Your task to perform on an android device: turn on wifi Image 0: 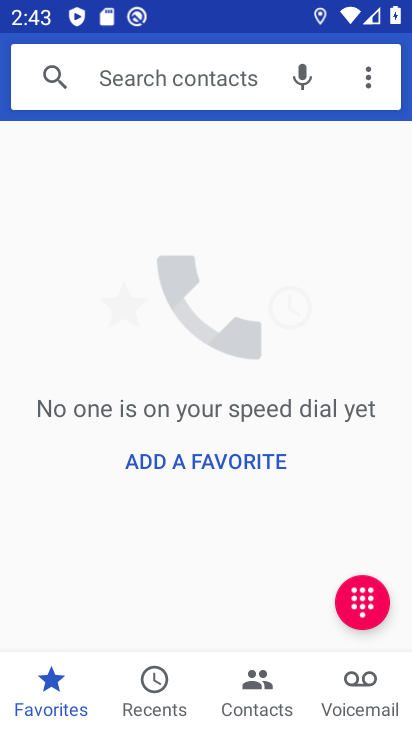
Step 0: press home button
Your task to perform on an android device: turn on wifi Image 1: 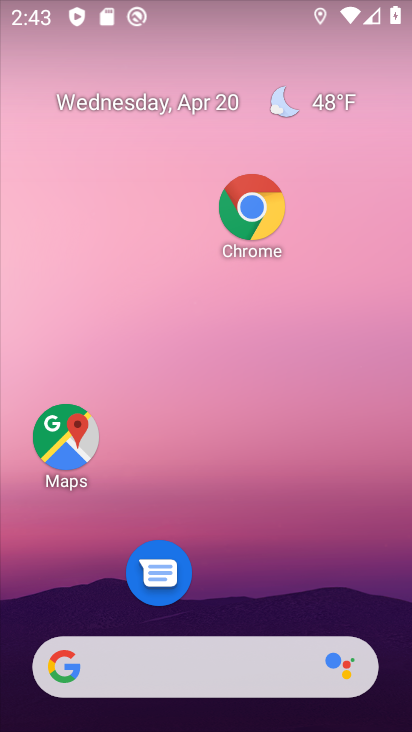
Step 1: drag from (270, 584) to (364, 210)
Your task to perform on an android device: turn on wifi Image 2: 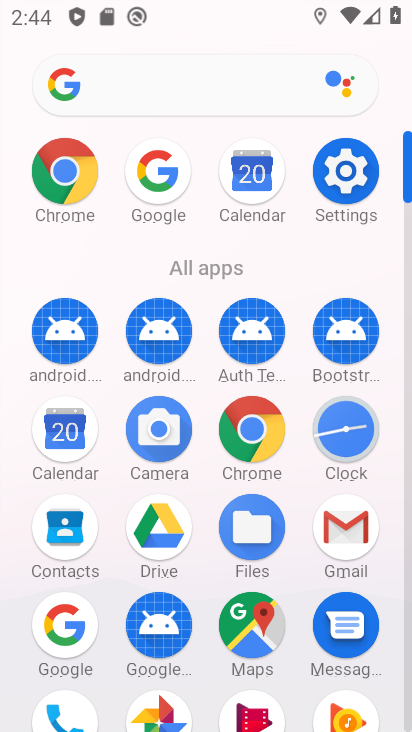
Step 2: click (364, 209)
Your task to perform on an android device: turn on wifi Image 3: 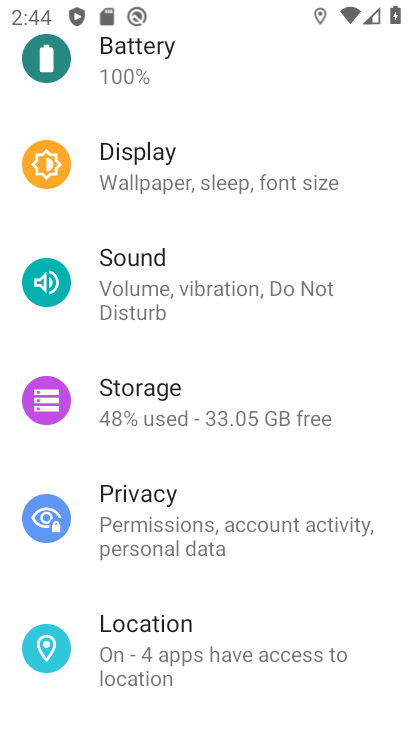
Step 3: drag from (290, 207) to (196, 696)
Your task to perform on an android device: turn on wifi Image 4: 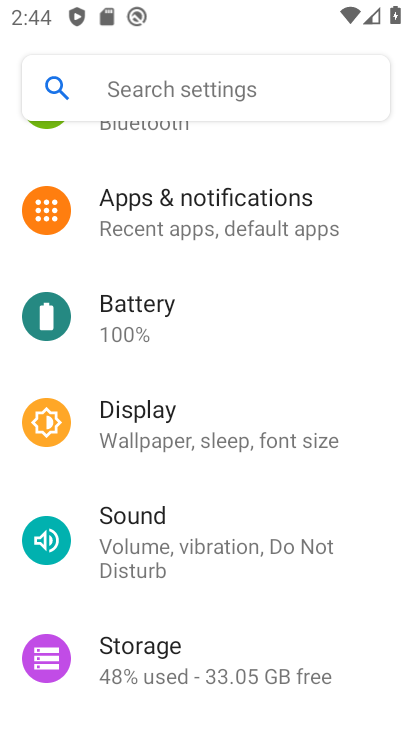
Step 4: drag from (282, 390) to (234, 656)
Your task to perform on an android device: turn on wifi Image 5: 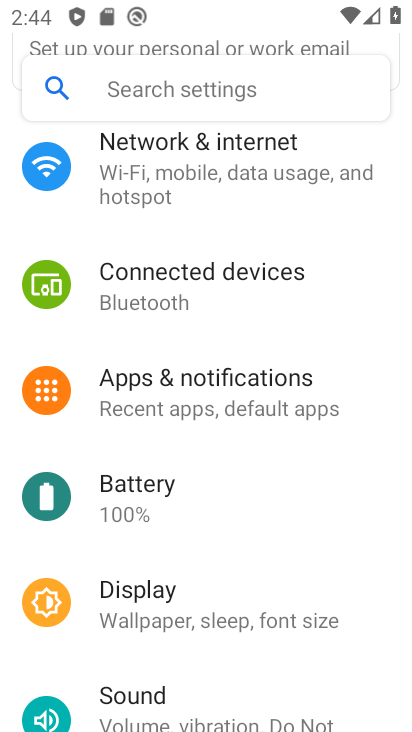
Step 5: drag from (283, 362) to (288, 607)
Your task to perform on an android device: turn on wifi Image 6: 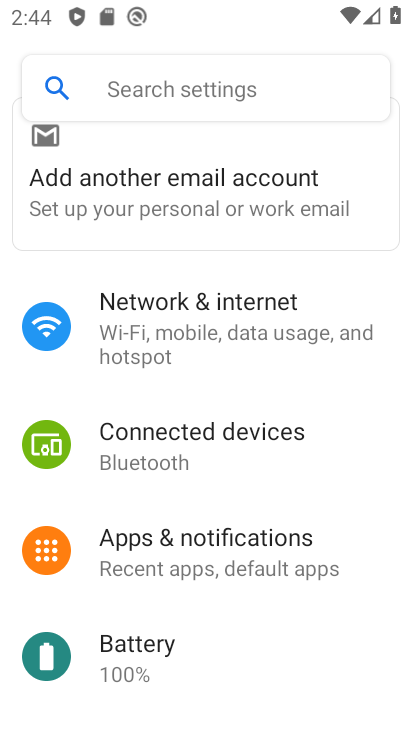
Step 6: click (305, 341)
Your task to perform on an android device: turn on wifi Image 7: 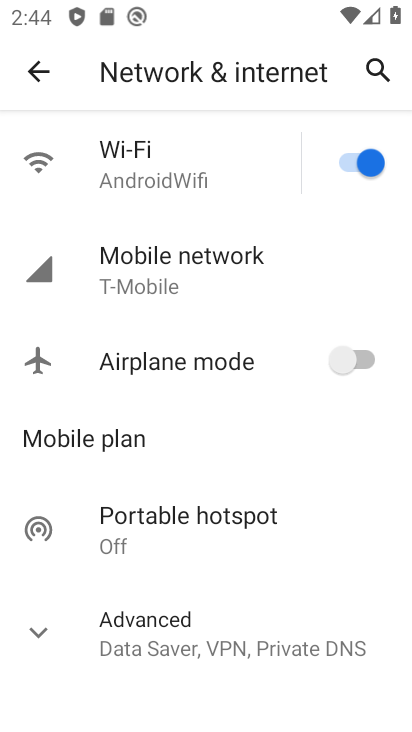
Step 7: task complete